Your task to perform on an android device: Open calendar and show me the fourth week of next month Image 0: 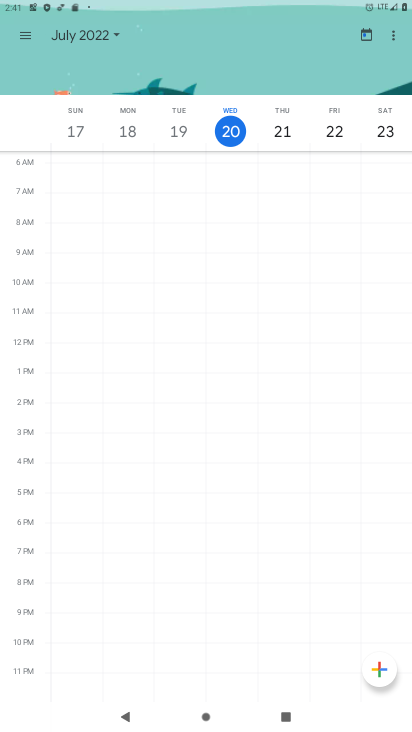
Step 0: press home button
Your task to perform on an android device: Open calendar and show me the fourth week of next month Image 1: 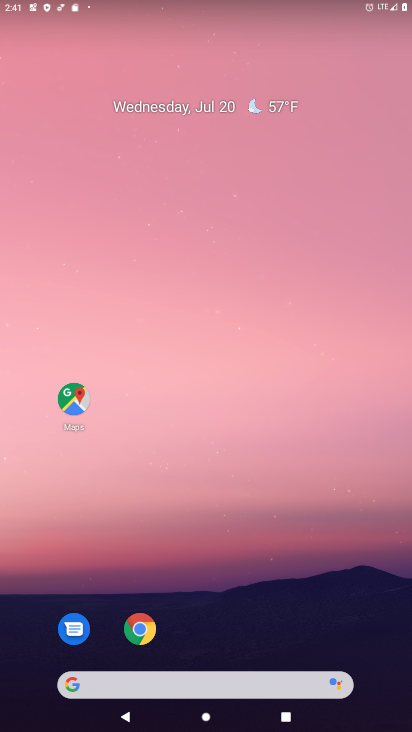
Step 1: drag from (363, 494) to (355, 343)
Your task to perform on an android device: Open calendar and show me the fourth week of next month Image 2: 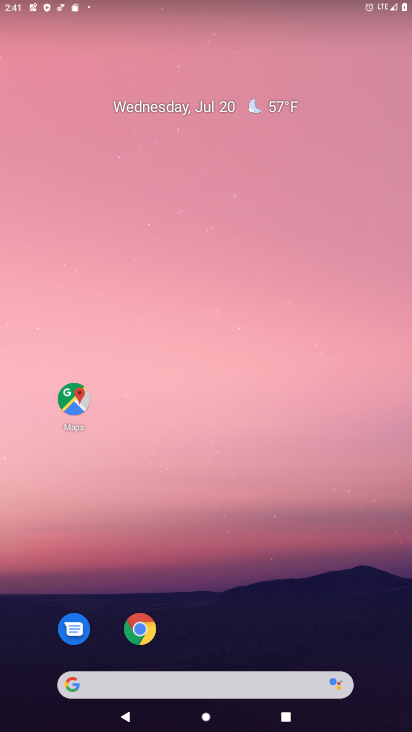
Step 2: drag from (378, 662) to (311, 69)
Your task to perform on an android device: Open calendar and show me the fourth week of next month Image 3: 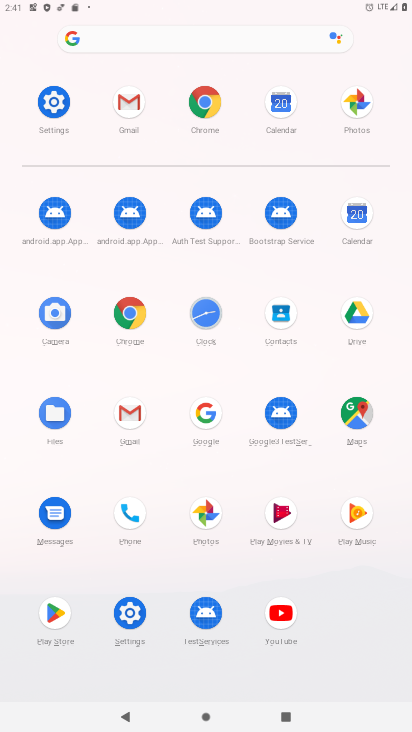
Step 3: click (353, 212)
Your task to perform on an android device: Open calendar and show me the fourth week of next month Image 4: 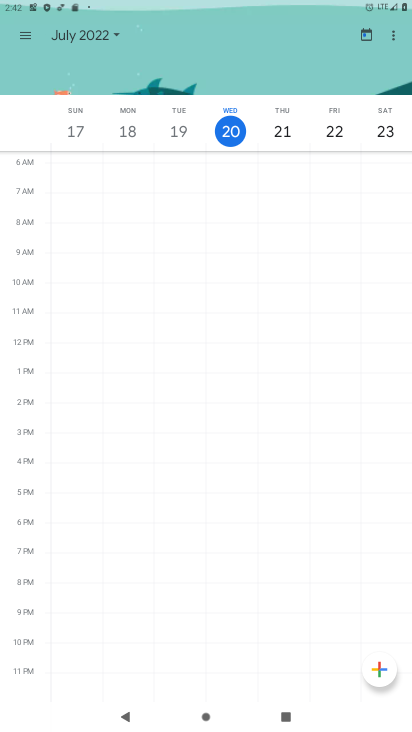
Step 4: click (20, 34)
Your task to perform on an android device: Open calendar and show me the fourth week of next month Image 5: 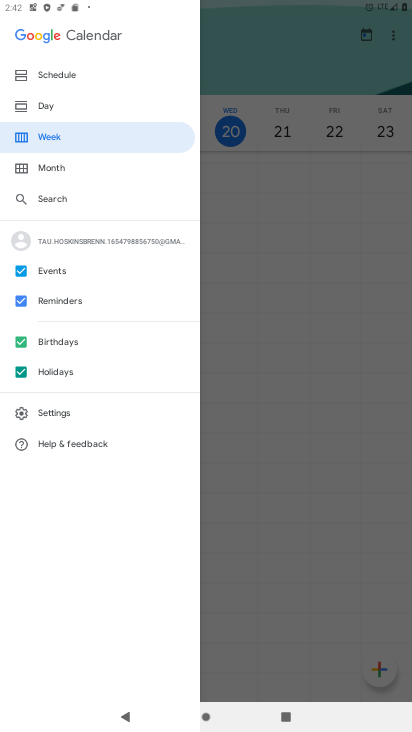
Step 5: click (231, 190)
Your task to perform on an android device: Open calendar and show me the fourth week of next month Image 6: 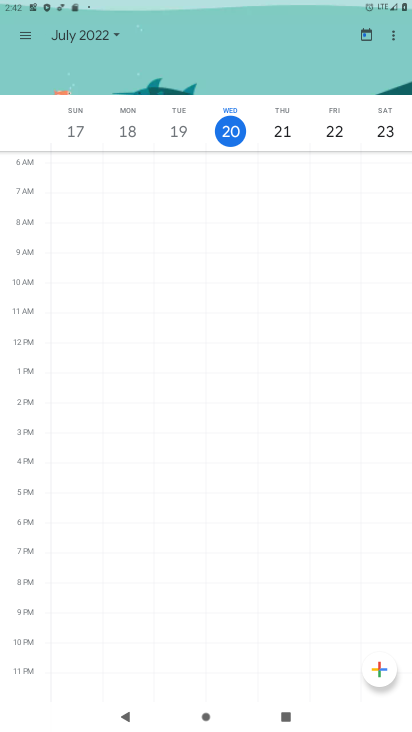
Step 6: click (112, 39)
Your task to perform on an android device: Open calendar and show me the fourth week of next month Image 7: 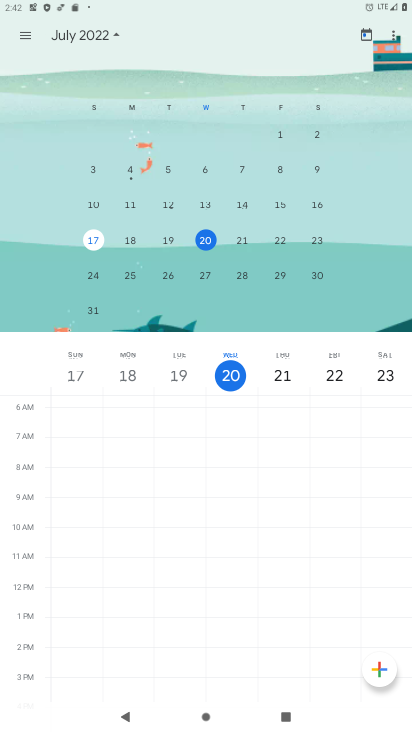
Step 7: drag from (310, 242) to (59, 248)
Your task to perform on an android device: Open calendar and show me the fourth week of next month Image 8: 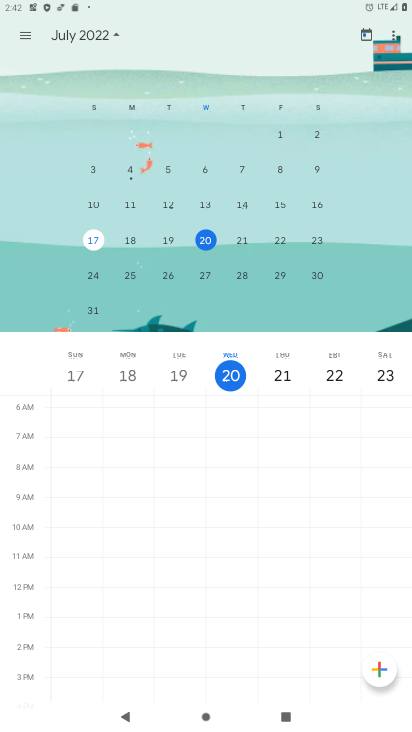
Step 8: drag from (321, 237) to (67, 223)
Your task to perform on an android device: Open calendar and show me the fourth week of next month Image 9: 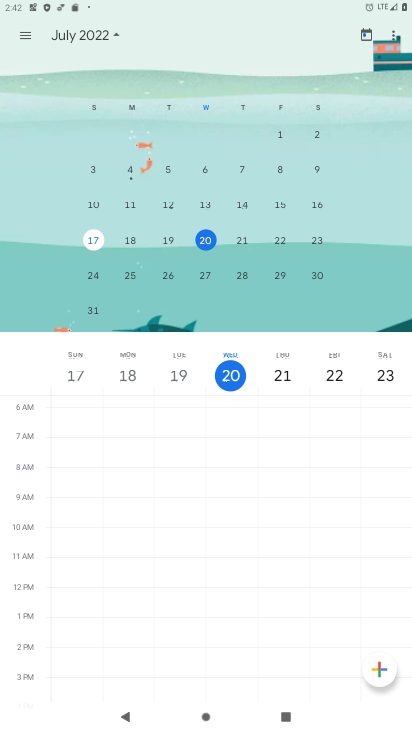
Step 9: drag from (320, 240) to (25, 239)
Your task to perform on an android device: Open calendar and show me the fourth week of next month Image 10: 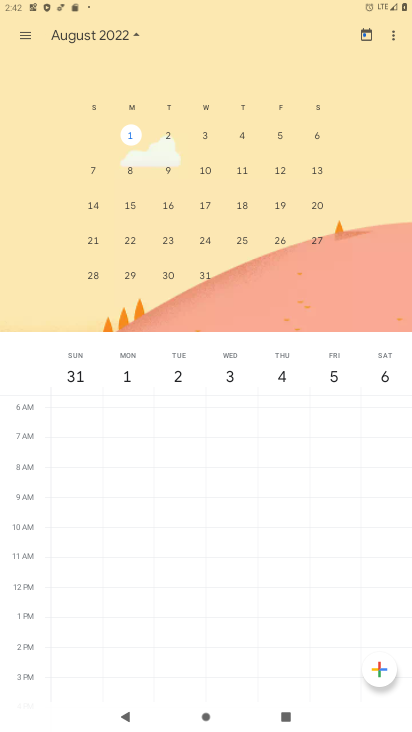
Step 10: click (94, 272)
Your task to perform on an android device: Open calendar and show me the fourth week of next month Image 11: 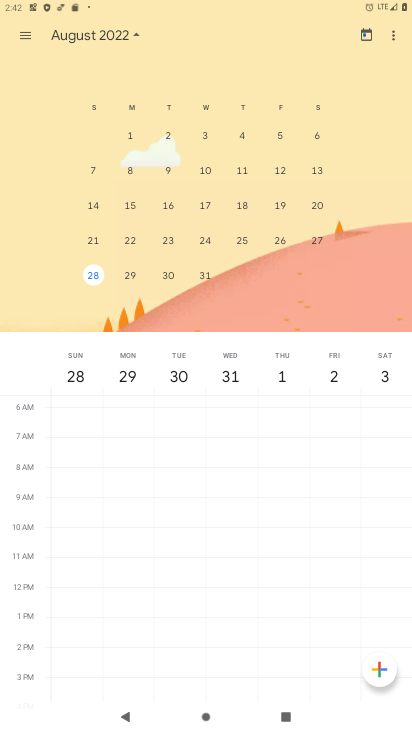
Step 11: task complete